Your task to perform on an android device: Search for seafood restaurants on Google Maps Image 0: 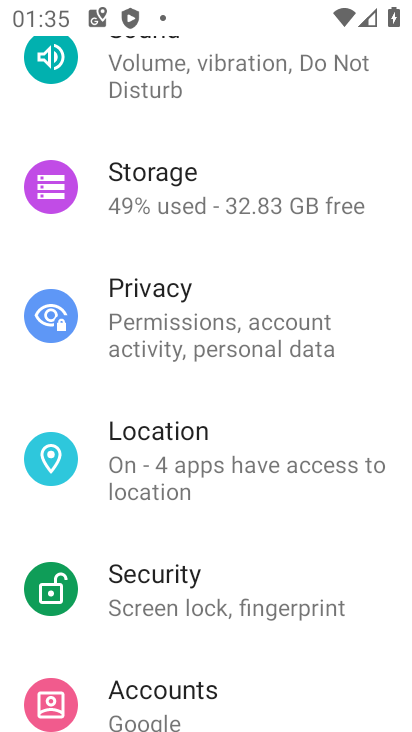
Step 0: press home button
Your task to perform on an android device: Search for seafood restaurants on Google Maps Image 1: 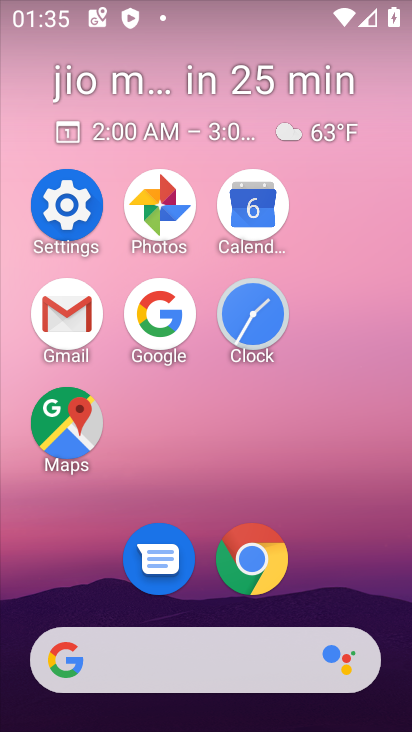
Step 1: click (79, 427)
Your task to perform on an android device: Search for seafood restaurants on Google Maps Image 2: 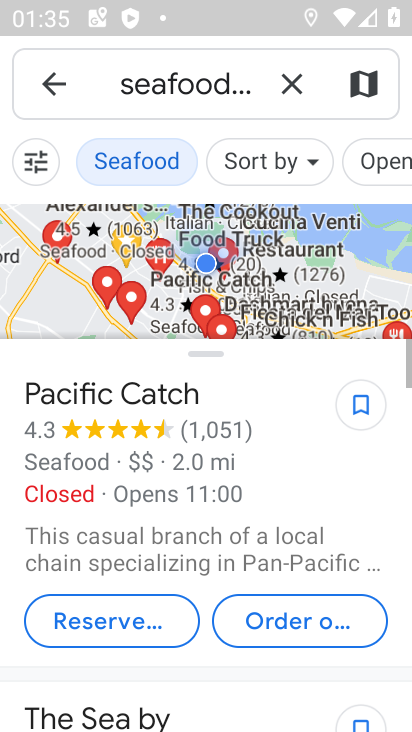
Step 2: task complete